Your task to perform on an android device: toggle airplane mode Image 0: 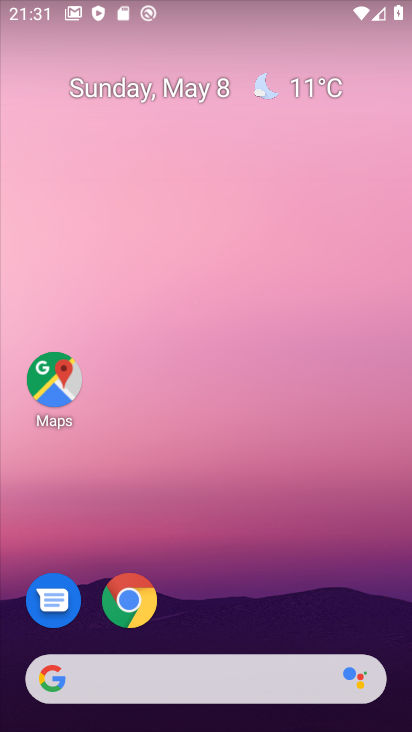
Step 0: drag from (257, 630) to (262, 277)
Your task to perform on an android device: toggle airplane mode Image 1: 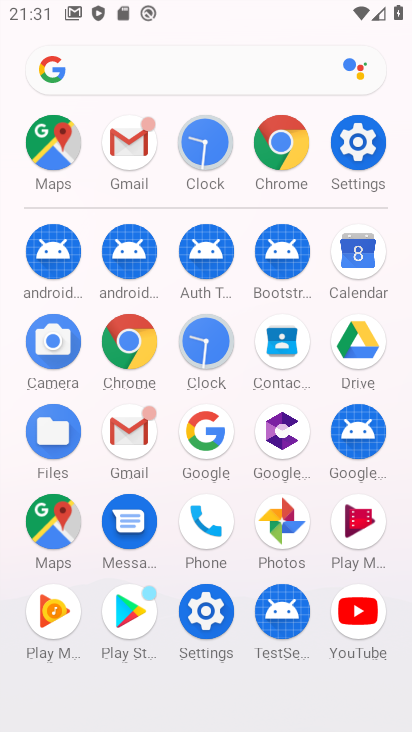
Step 1: press home button
Your task to perform on an android device: toggle airplane mode Image 2: 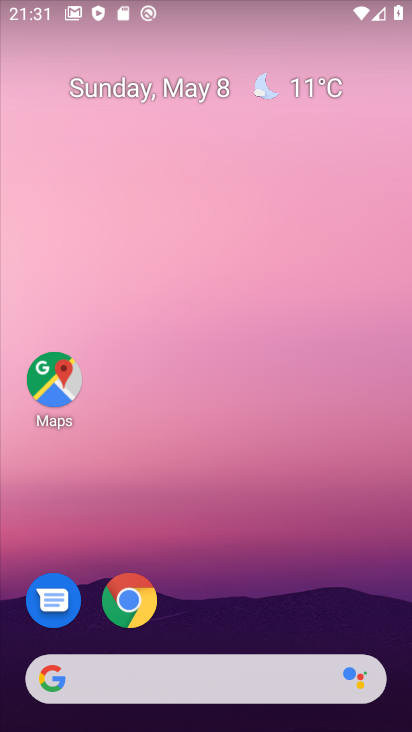
Step 2: drag from (253, 23) to (248, 574)
Your task to perform on an android device: toggle airplane mode Image 3: 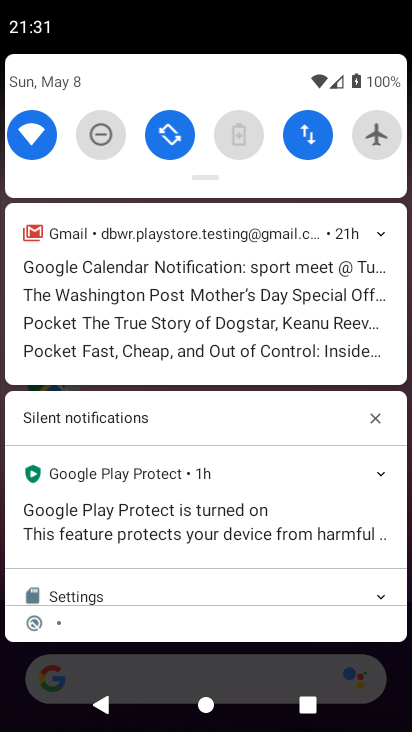
Step 3: click (358, 129)
Your task to perform on an android device: toggle airplane mode Image 4: 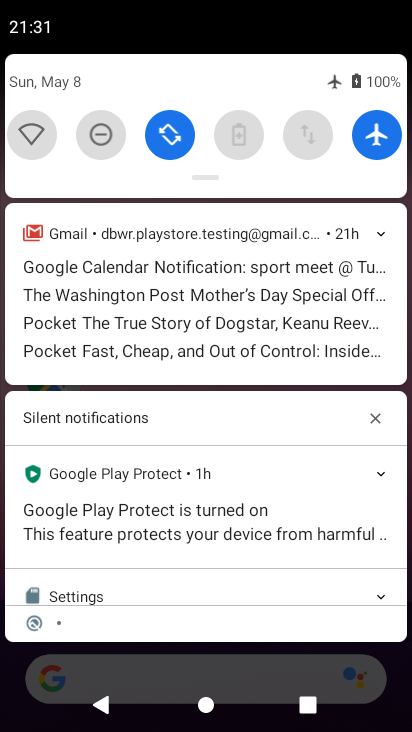
Step 4: click (358, 129)
Your task to perform on an android device: toggle airplane mode Image 5: 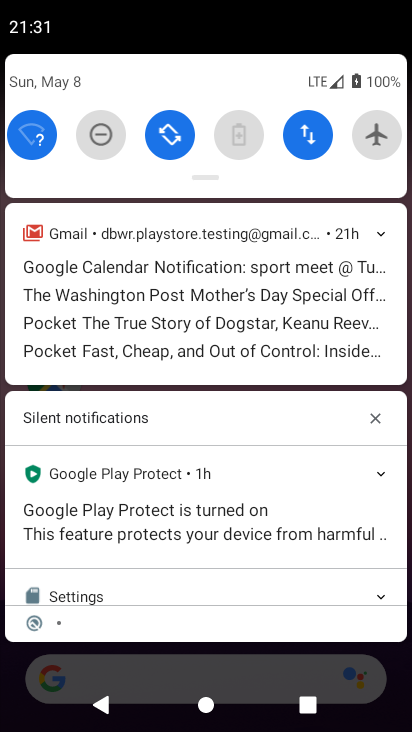
Step 5: task complete